Your task to perform on an android device: see sites visited before in the chrome app Image 0: 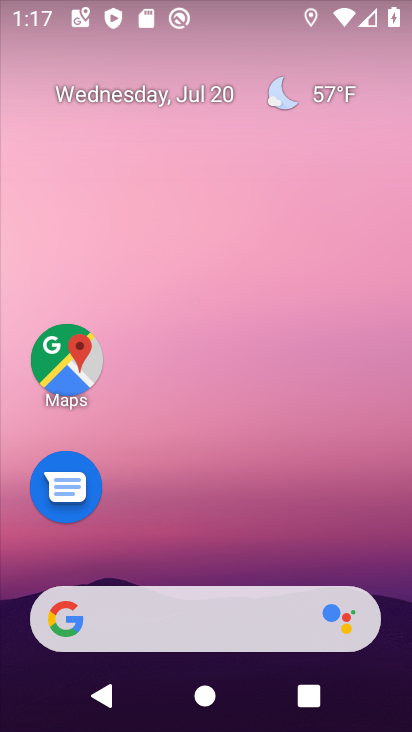
Step 0: press back button
Your task to perform on an android device: see sites visited before in the chrome app Image 1: 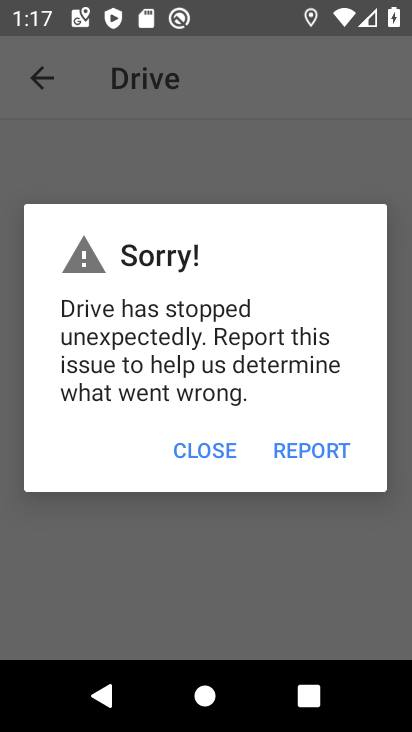
Step 1: press back button
Your task to perform on an android device: see sites visited before in the chrome app Image 2: 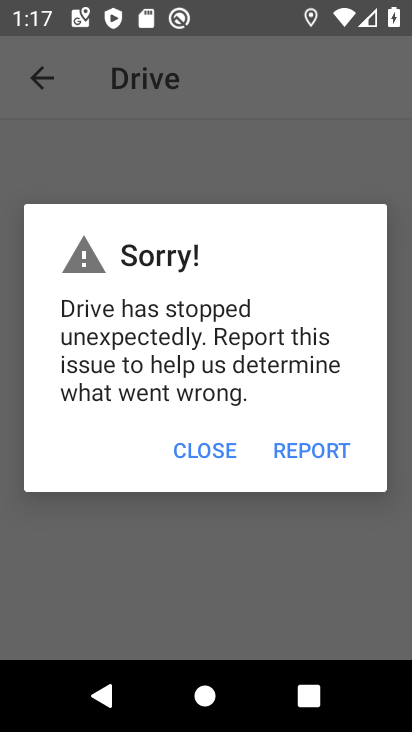
Step 2: press home button
Your task to perform on an android device: see sites visited before in the chrome app Image 3: 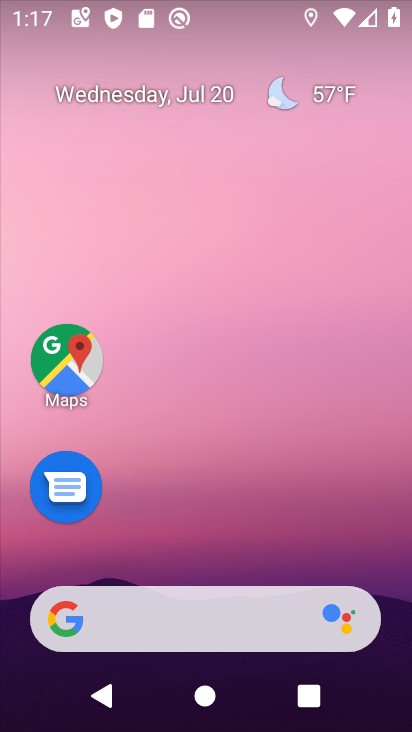
Step 3: drag from (209, 548) to (287, 1)
Your task to perform on an android device: see sites visited before in the chrome app Image 4: 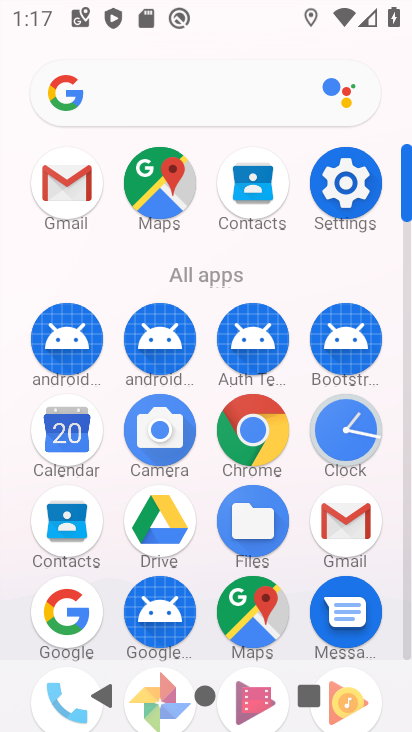
Step 4: click (259, 442)
Your task to perform on an android device: see sites visited before in the chrome app Image 5: 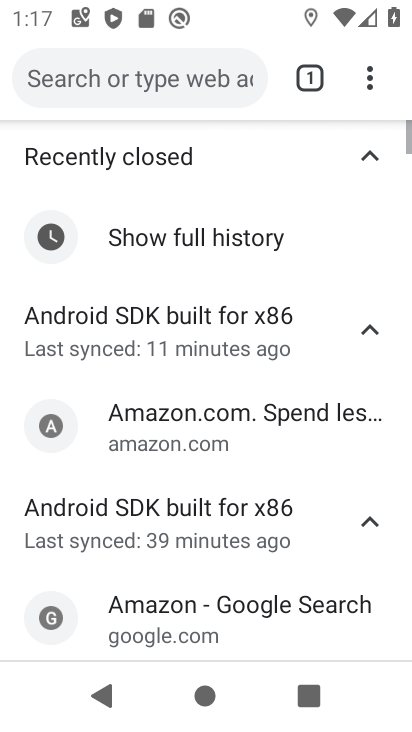
Step 5: task complete